Your task to perform on an android device: Open the Play Movies app and select the watchlist tab. Image 0: 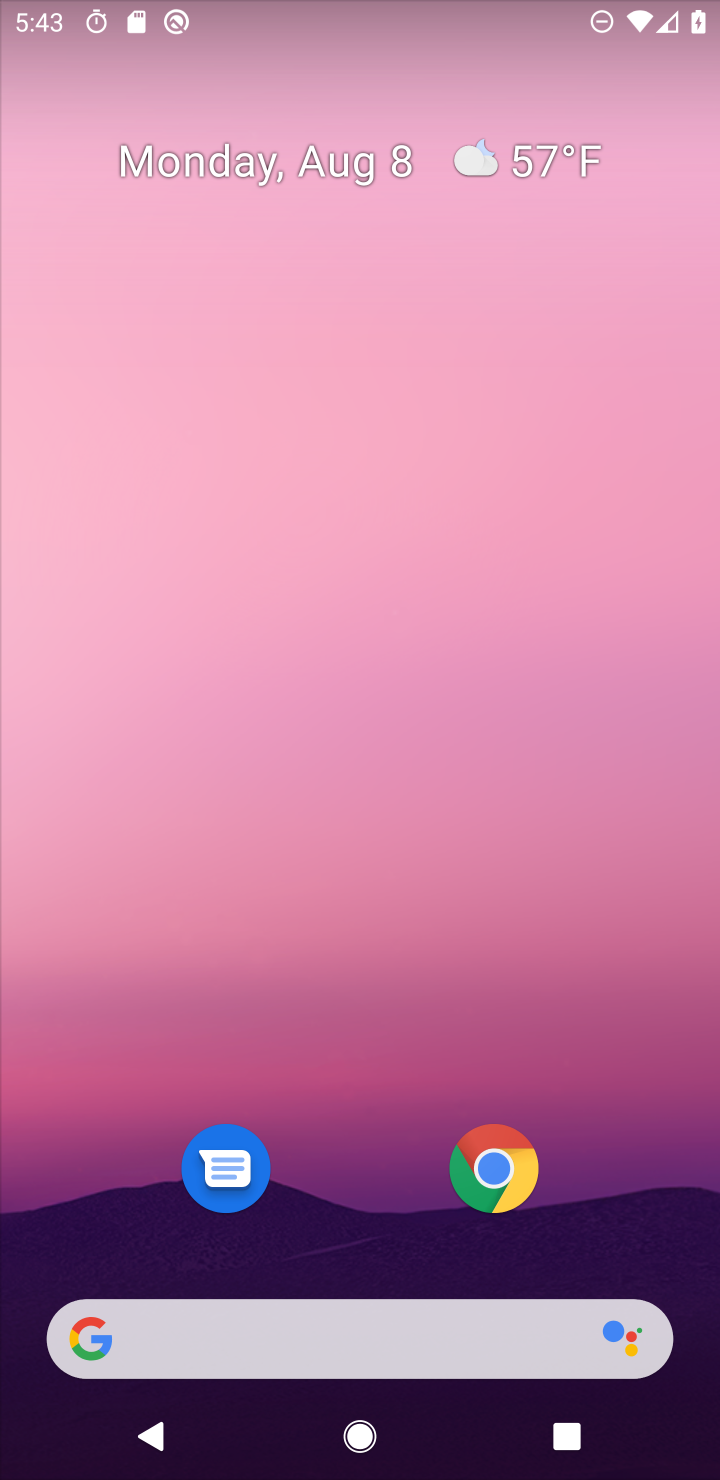
Step 0: drag from (347, 1320) to (310, 338)
Your task to perform on an android device: Open the Play Movies app and select the watchlist tab. Image 1: 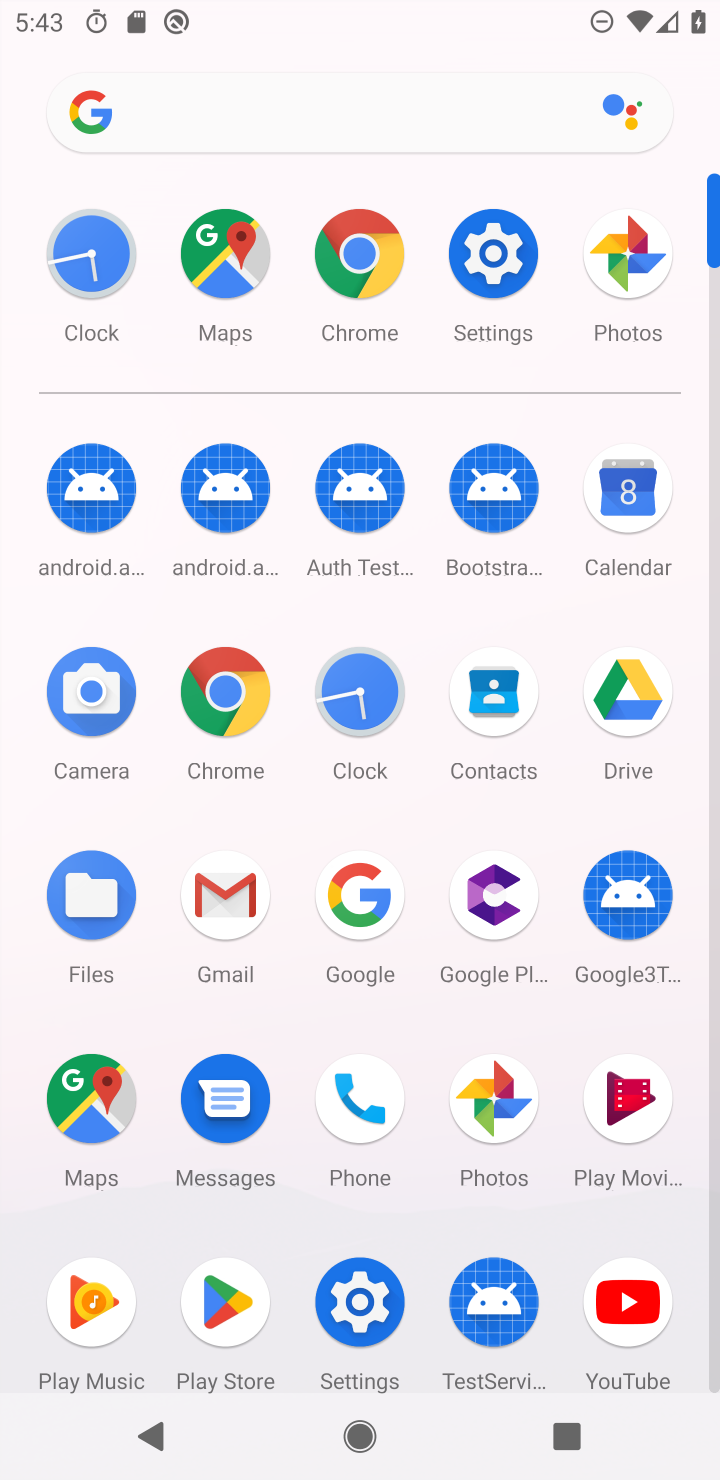
Step 1: click (628, 1093)
Your task to perform on an android device: Open the Play Movies app and select the watchlist tab. Image 2: 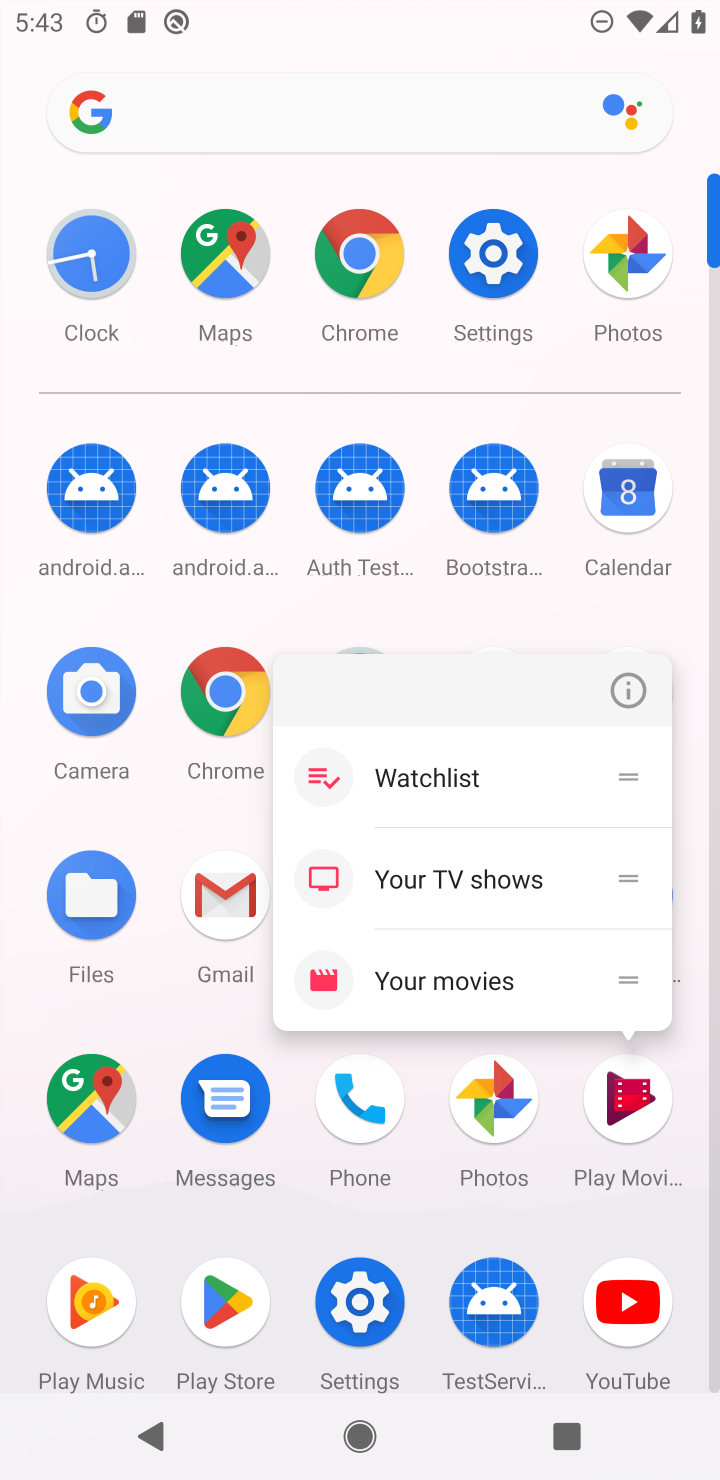
Step 2: click (643, 1104)
Your task to perform on an android device: Open the Play Movies app and select the watchlist tab. Image 3: 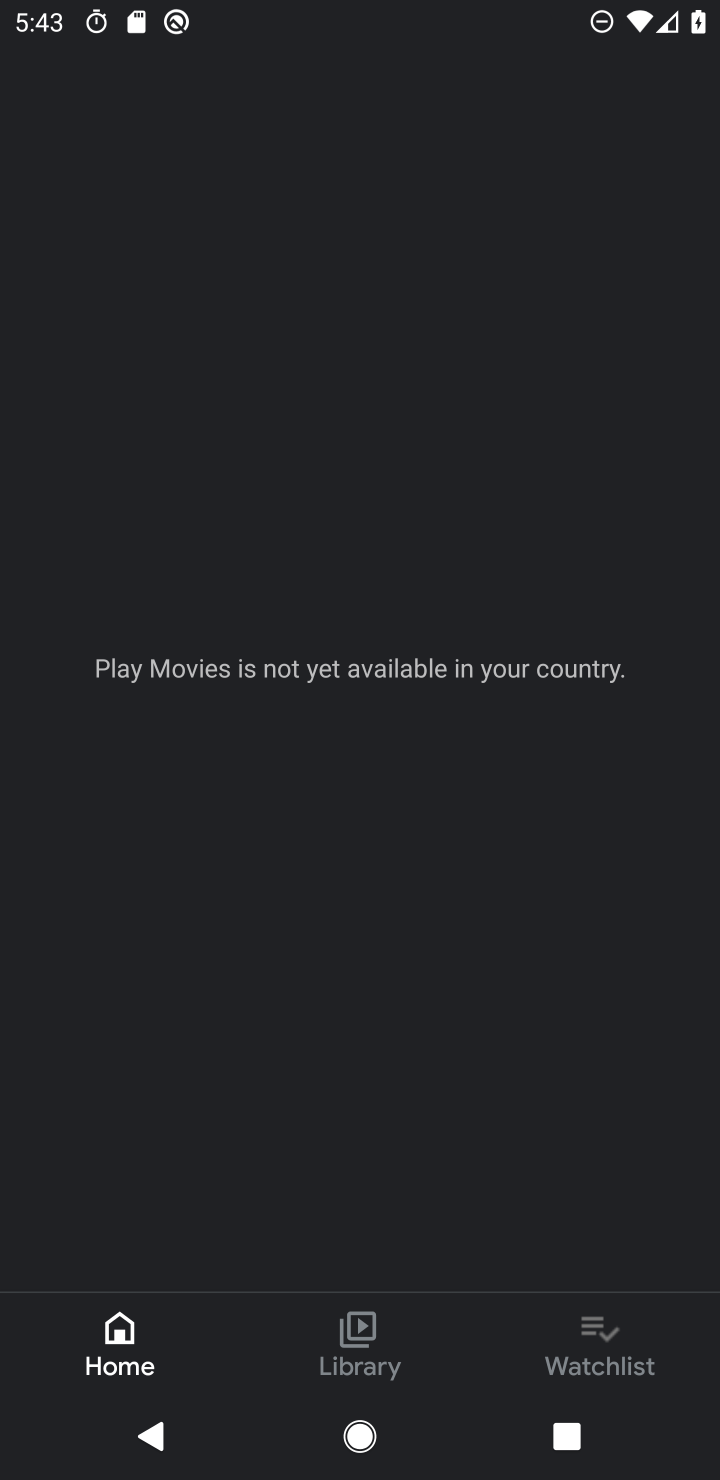
Step 3: click (612, 1343)
Your task to perform on an android device: Open the Play Movies app and select the watchlist tab. Image 4: 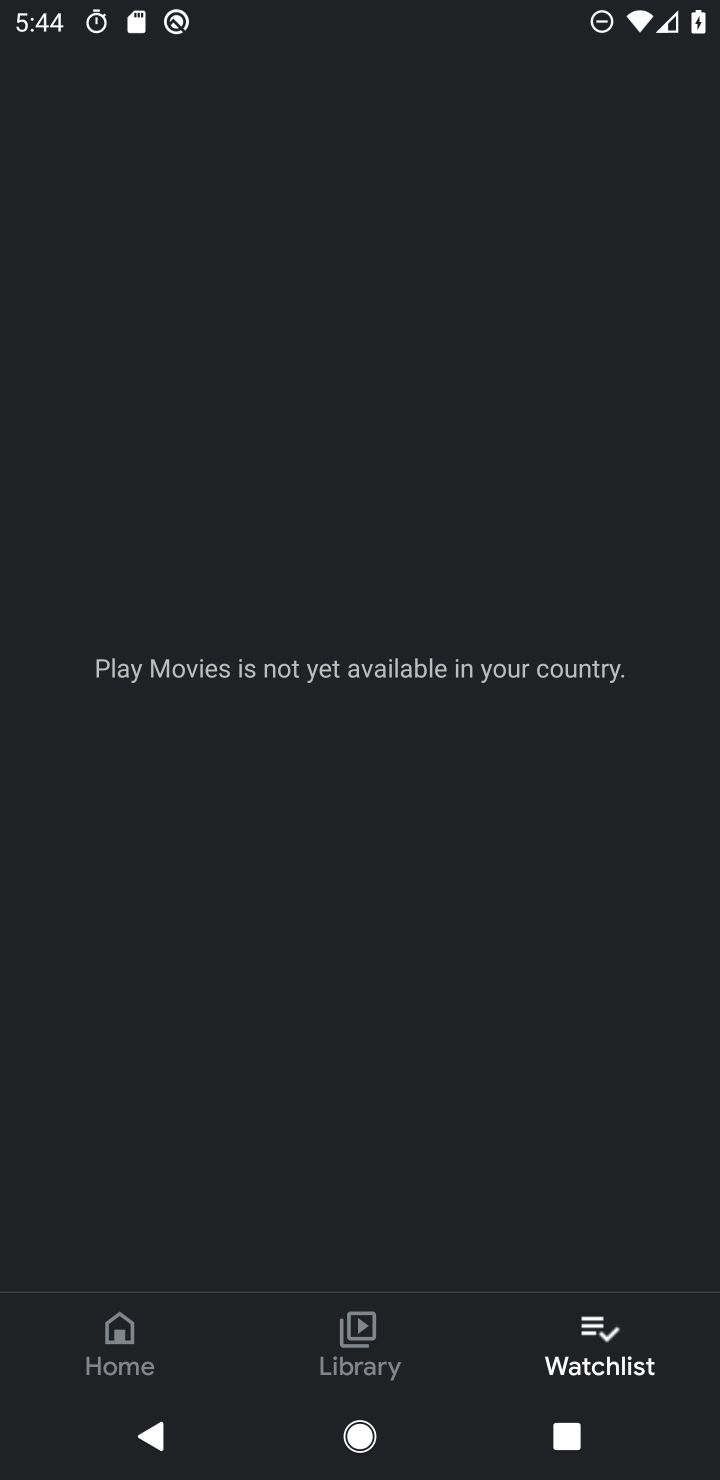
Step 4: task complete